Your task to perform on an android device: Go to Android settings Image 0: 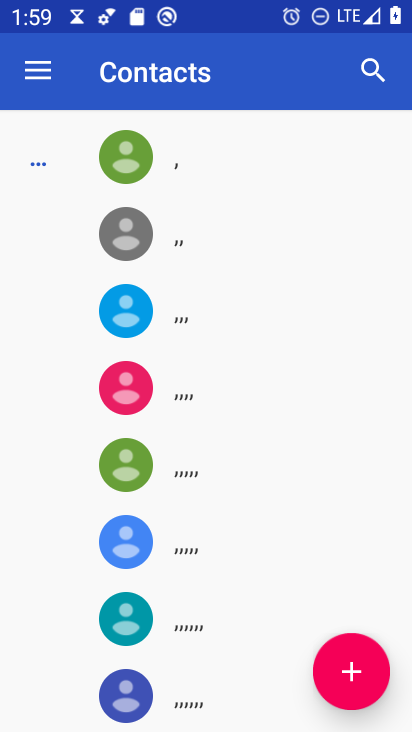
Step 0: press home button
Your task to perform on an android device: Go to Android settings Image 1: 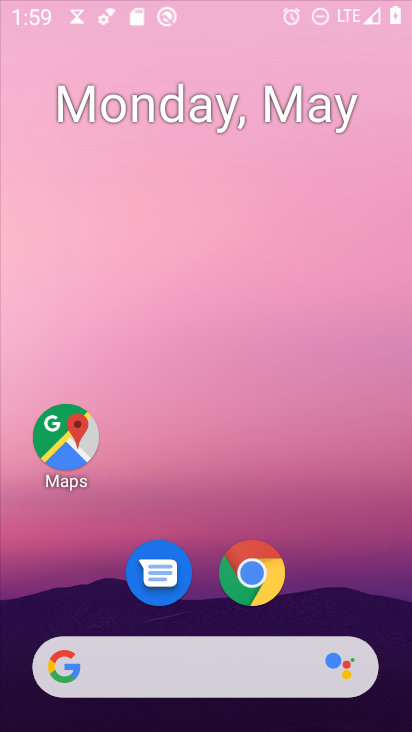
Step 1: drag from (227, 676) to (214, 96)
Your task to perform on an android device: Go to Android settings Image 2: 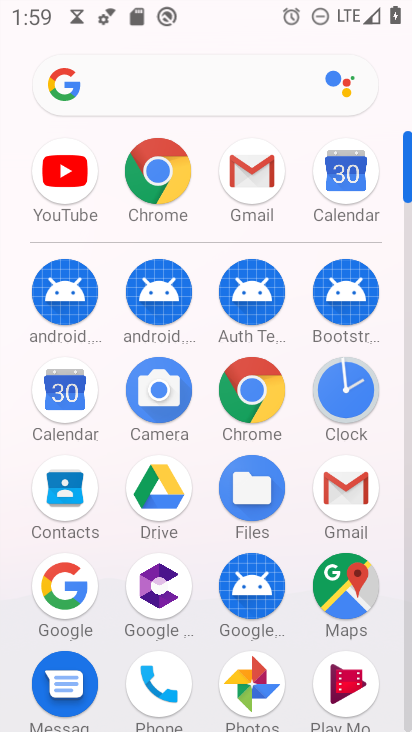
Step 2: drag from (290, 584) to (286, 155)
Your task to perform on an android device: Go to Android settings Image 3: 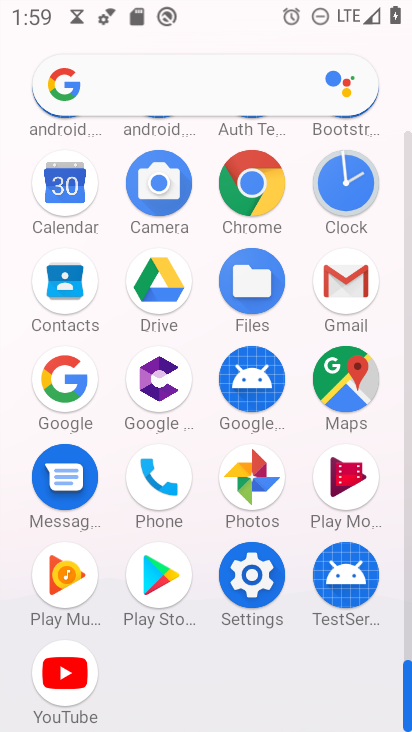
Step 3: click (261, 575)
Your task to perform on an android device: Go to Android settings Image 4: 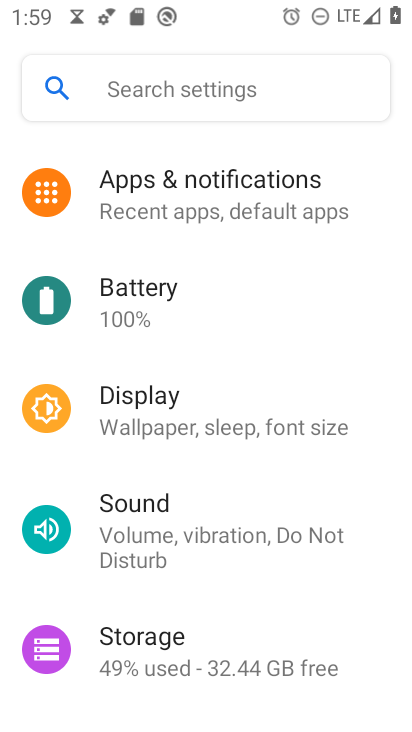
Step 4: drag from (269, 349) to (306, 731)
Your task to perform on an android device: Go to Android settings Image 5: 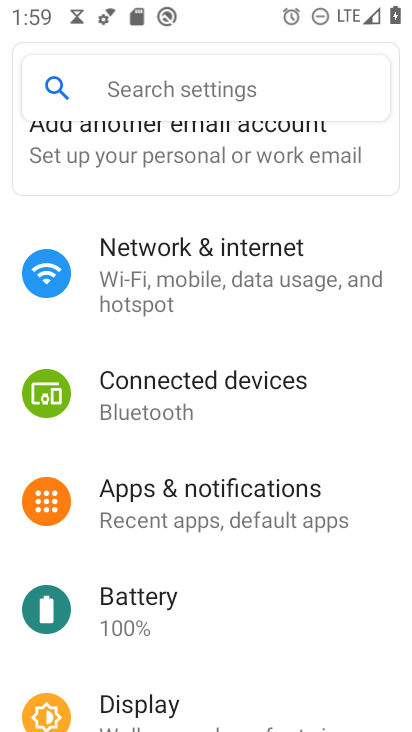
Step 5: drag from (214, 664) to (209, 8)
Your task to perform on an android device: Go to Android settings Image 6: 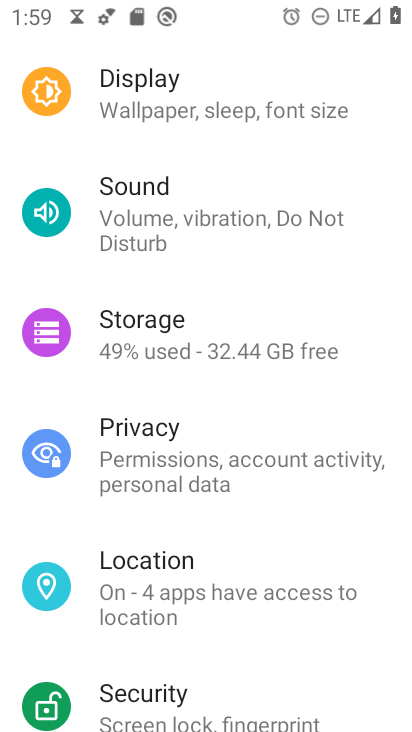
Step 6: drag from (199, 678) to (280, 184)
Your task to perform on an android device: Go to Android settings Image 7: 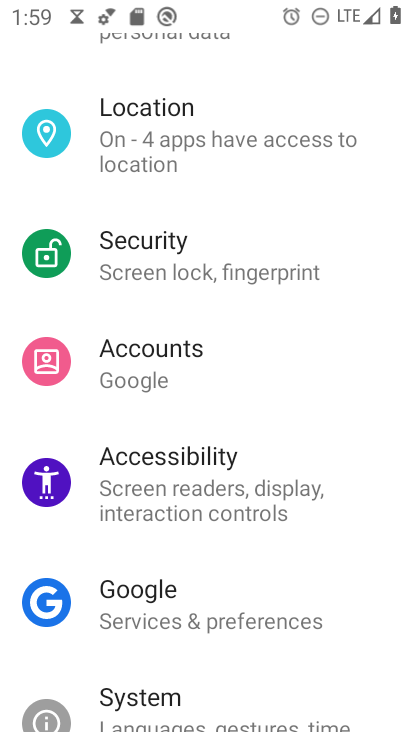
Step 7: drag from (284, 695) to (371, 323)
Your task to perform on an android device: Go to Android settings Image 8: 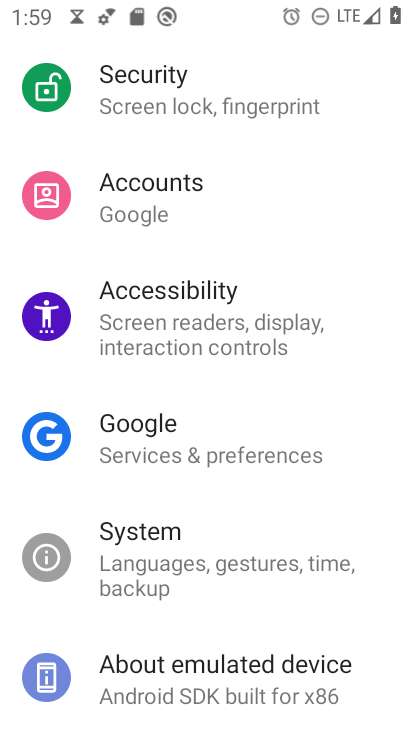
Step 8: click (254, 679)
Your task to perform on an android device: Go to Android settings Image 9: 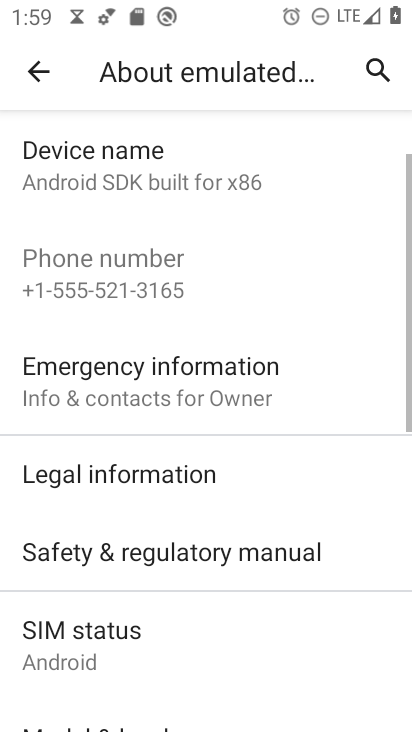
Step 9: drag from (296, 701) to (328, 121)
Your task to perform on an android device: Go to Android settings Image 10: 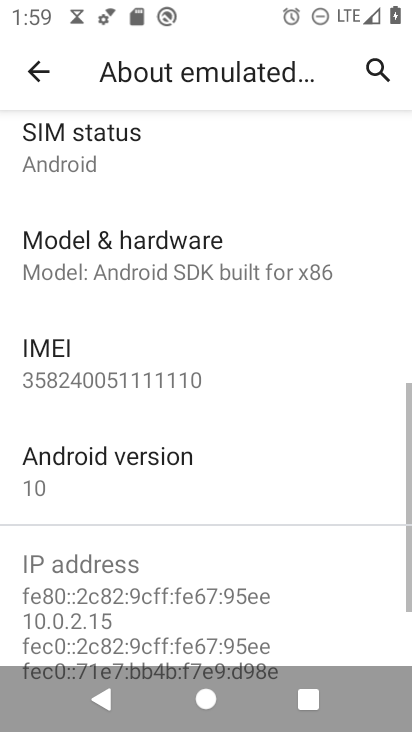
Step 10: click (197, 458)
Your task to perform on an android device: Go to Android settings Image 11: 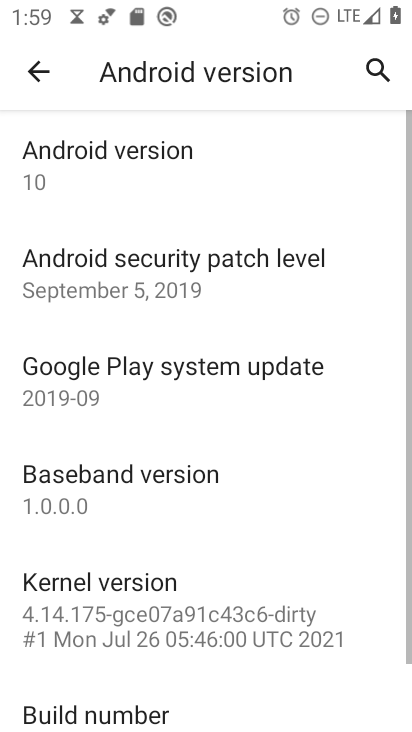
Step 11: task complete